Your task to perform on an android device: Open calendar and show me the second week of next month Image 0: 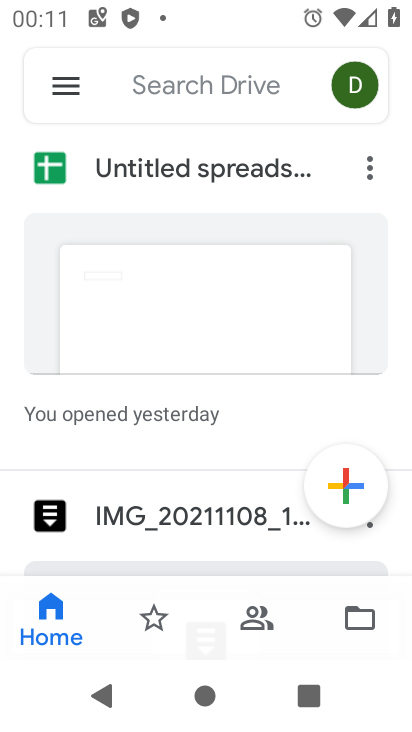
Step 0: press home button
Your task to perform on an android device: Open calendar and show me the second week of next month Image 1: 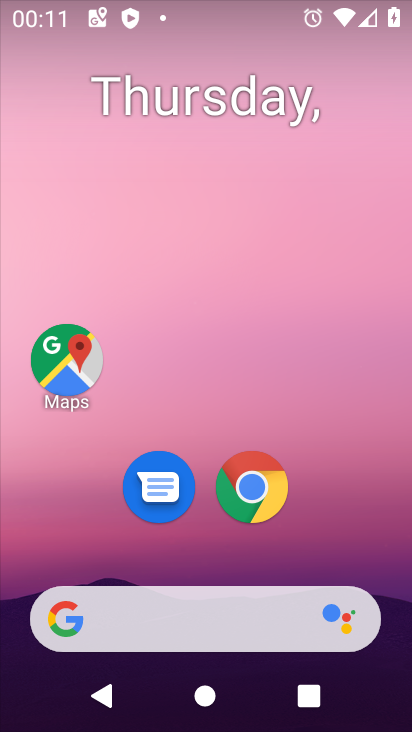
Step 1: drag from (352, 570) to (351, 0)
Your task to perform on an android device: Open calendar and show me the second week of next month Image 2: 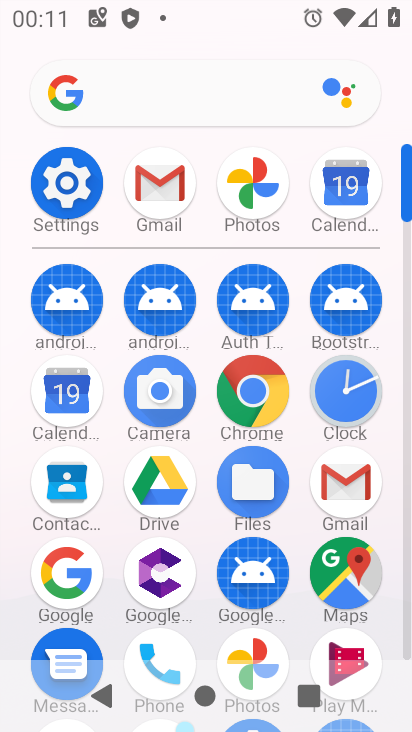
Step 2: click (350, 171)
Your task to perform on an android device: Open calendar and show me the second week of next month Image 3: 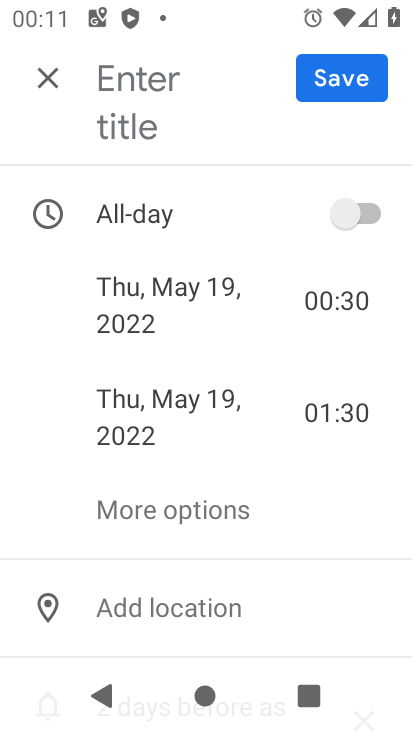
Step 3: click (34, 69)
Your task to perform on an android device: Open calendar and show me the second week of next month Image 4: 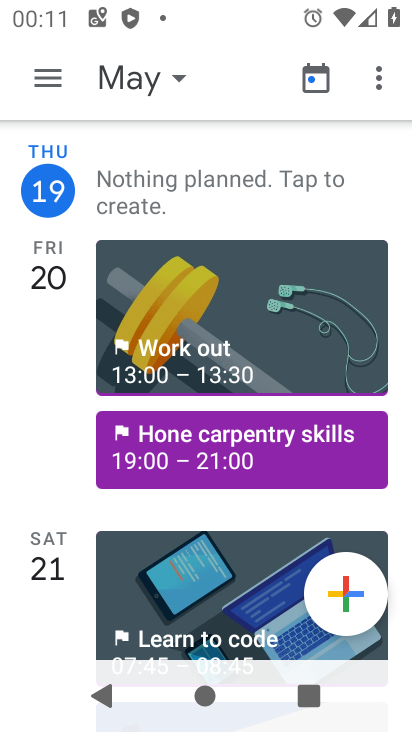
Step 4: click (181, 81)
Your task to perform on an android device: Open calendar and show me the second week of next month Image 5: 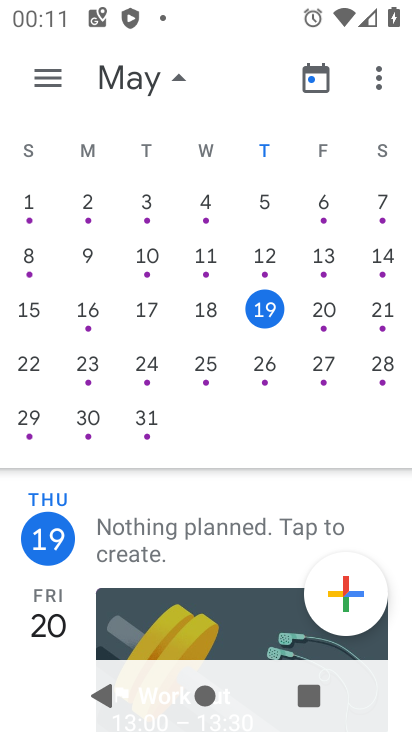
Step 5: drag from (363, 250) to (2, 373)
Your task to perform on an android device: Open calendar and show me the second week of next month Image 6: 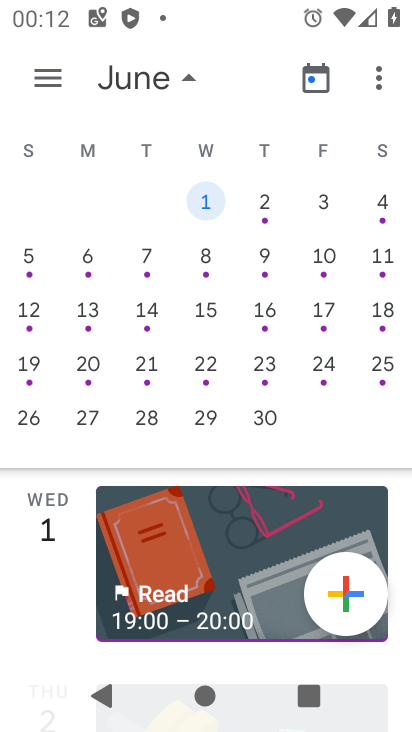
Step 6: click (46, 76)
Your task to perform on an android device: Open calendar and show me the second week of next month Image 7: 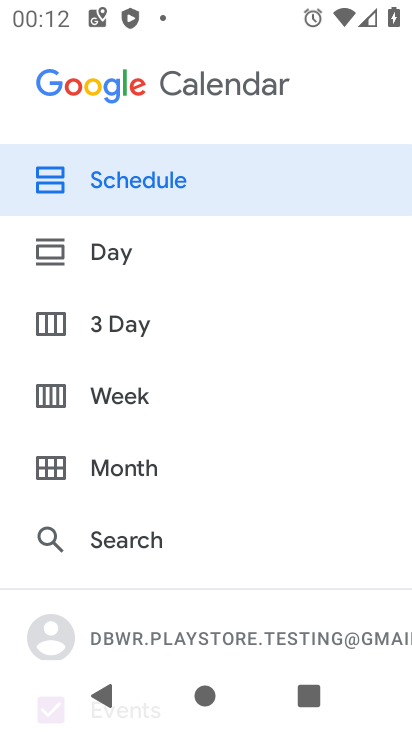
Step 7: click (126, 397)
Your task to perform on an android device: Open calendar and show me the second week of next month Image 8: 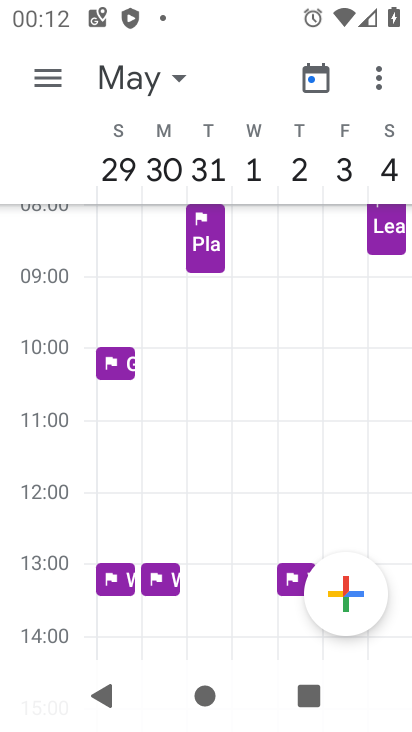
Step 8: task complete